Your task to perform on an android device: Open calendar and show me the first week of next month Image 0: 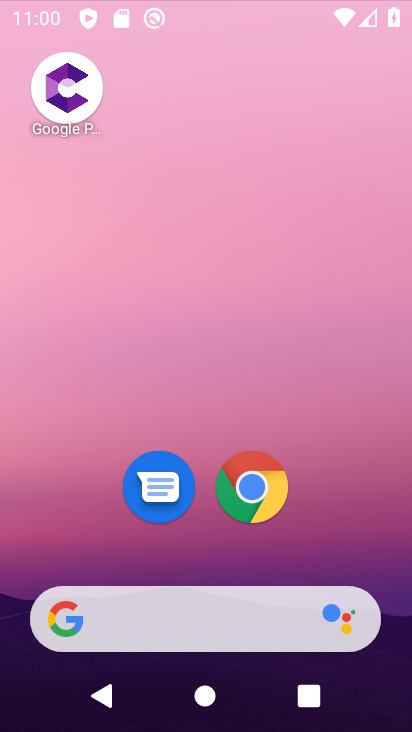
Step 0: drag from (376, 533) to (43, 416)
Your task to perform on an android device: Open calendar and show me the first week of next month Image 1: 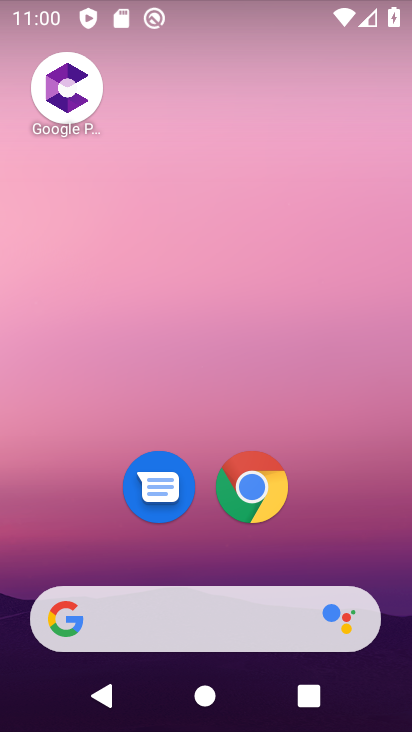
Step 1: drag from (347, 536) to (379, 5)
Your task to perform on an android device: Open calendar and show me the first week of next month Image 2: 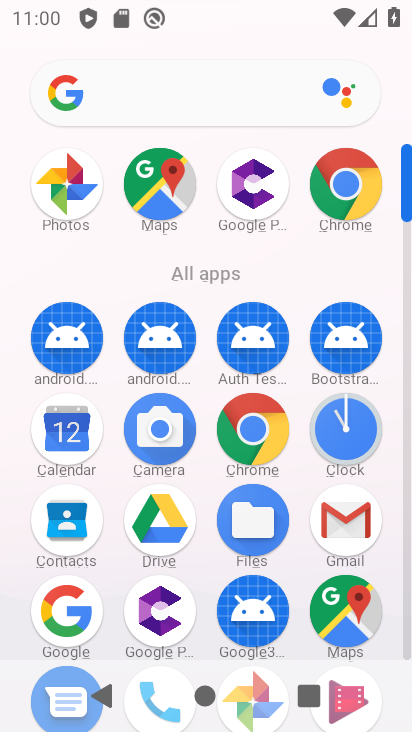
Step 2: click (73, 450)
Your task to perform on an android device: Open calendar and show me the first week of next month Image 3: 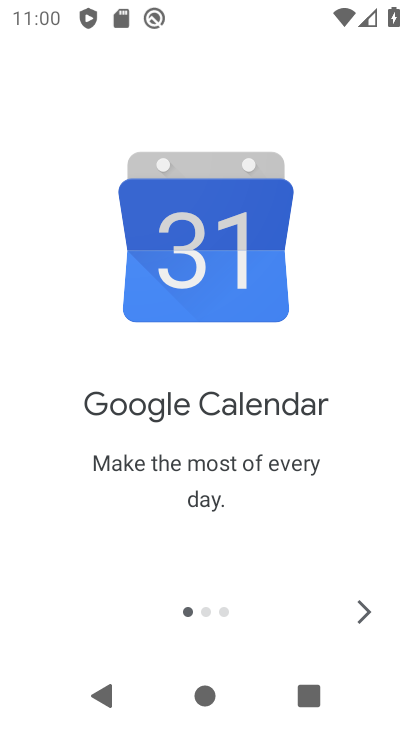
Step 3: click (373, 620)
Your task to perform on an android device: Open calendar and show me the first week of next month Image 4: 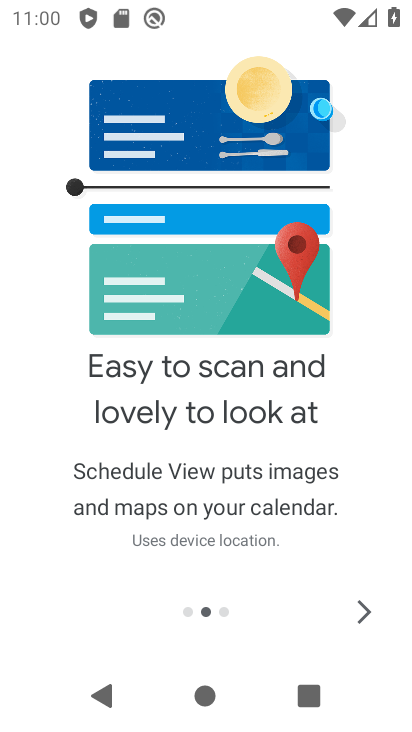
Step 4: click (373, 620)
Your task to perform on an android device: Open calendar and show me the first week of next month Image 5: 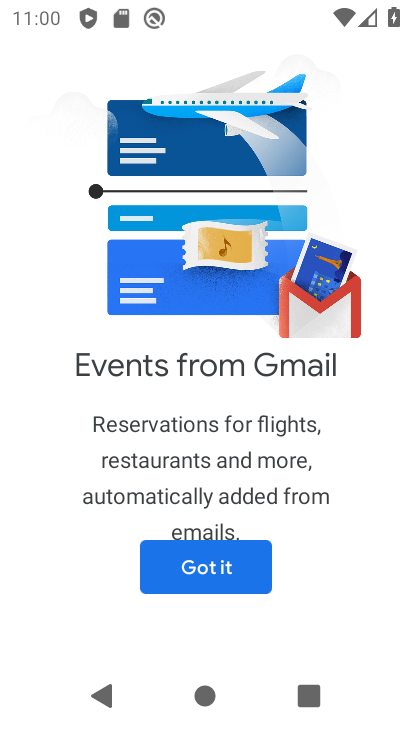
Step 5: click (231, 567)
Your task to perform on an android device: Open calendar and show me the first week of next month Image 6: 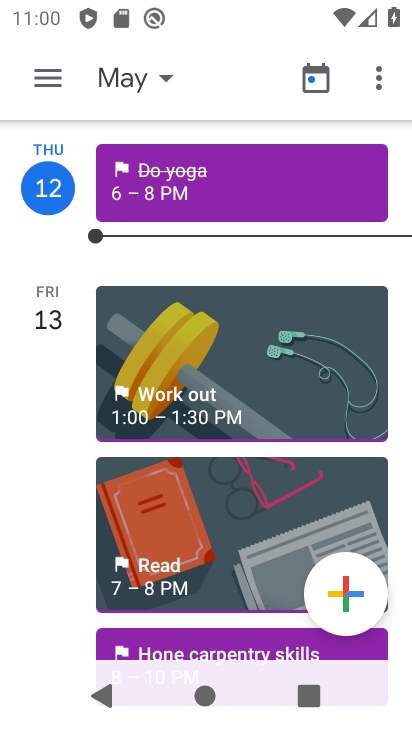
Step 6: click (122, 79)
Your task to perform on an android device: Open calendar and show me the first week of next month Image 7: 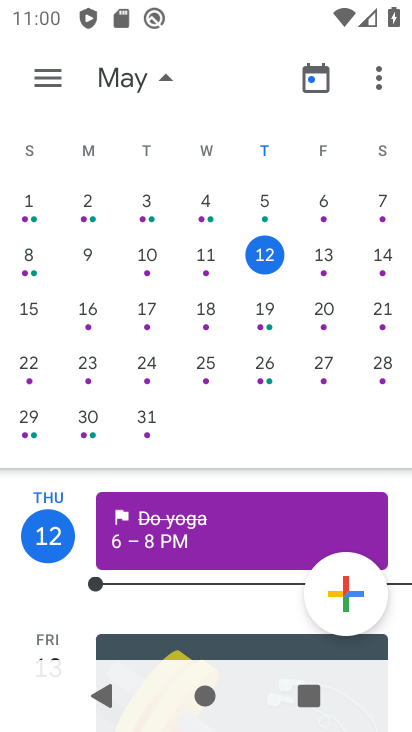
Step 7: drag from (348, 304) to (71, 311)
Your task to perform on an android device: Open calendar and show me the first week of next month Image 8: 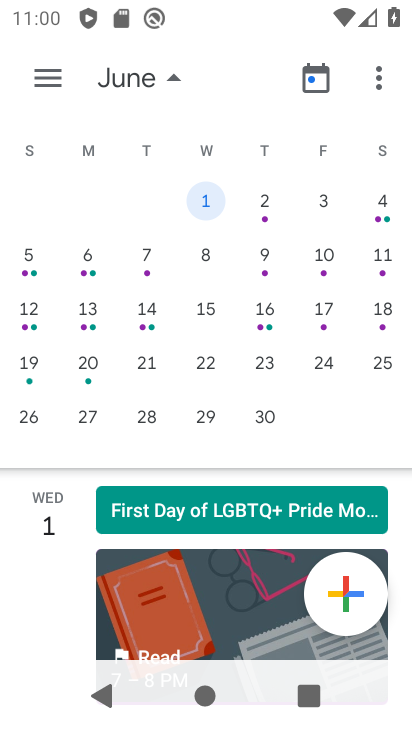
Step 8: click (145, 276)
Your task to perform on an android device: Open calendar and show me the first week of next month Image 9: 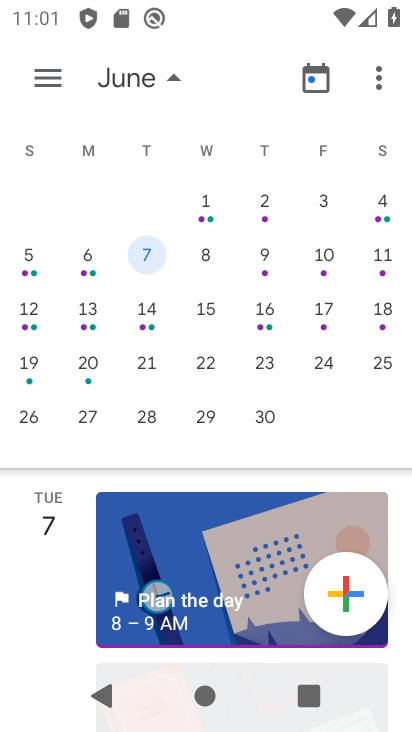
Step 9: task complete